Your task to perform on an android device: What's the weather going to be tomorrow? Image 0: 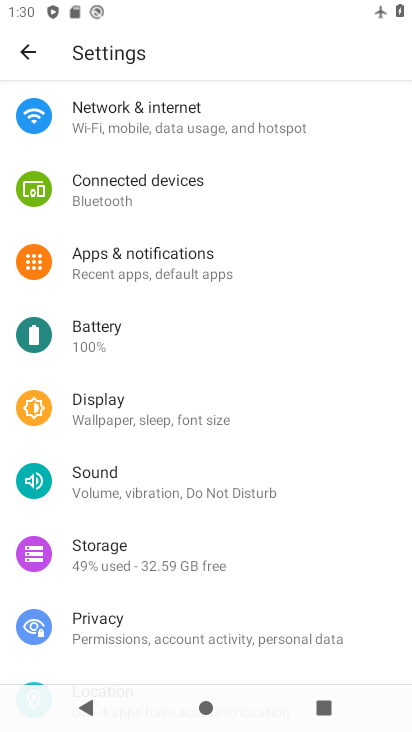
Step 0: press home button
Your task to perform on an android device: What's the weather going to be tomorrow? Image 1: 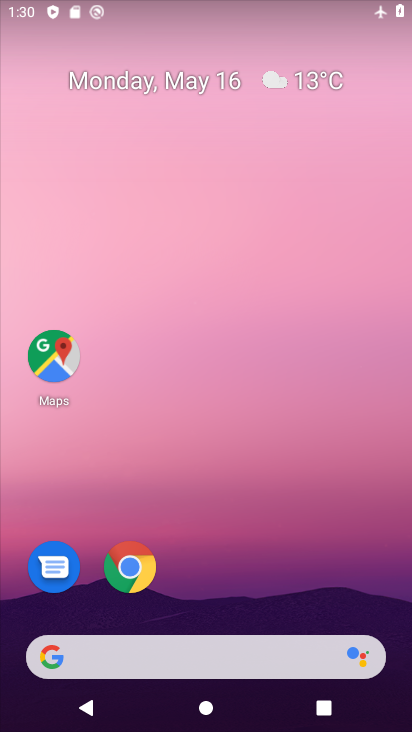
Step 1: click (172, 651)
Your task to perform on an android device: What's the weather going to be tomorrow? Image 2: 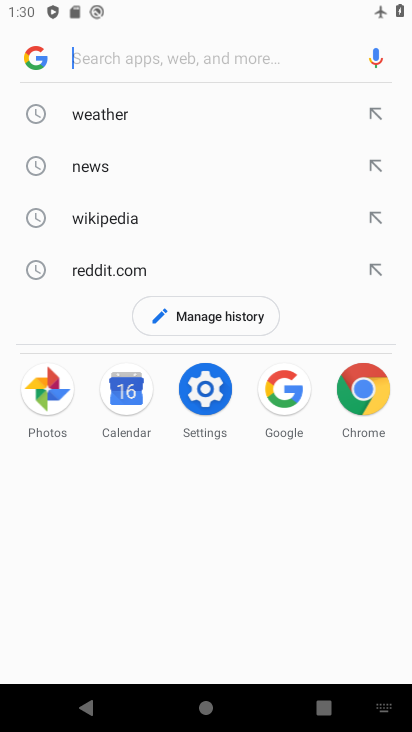
Step 2: click (118, 106)
Your task to perform on an android device: What's the weather going to be tomorrow? Image 3: 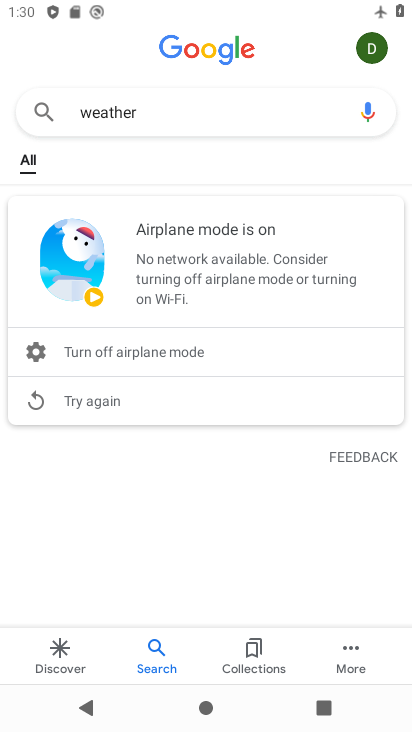
Step 3: click (171, 104)
Your task to perform on an android device: What's the weather going to be tomorrow? Image 4: 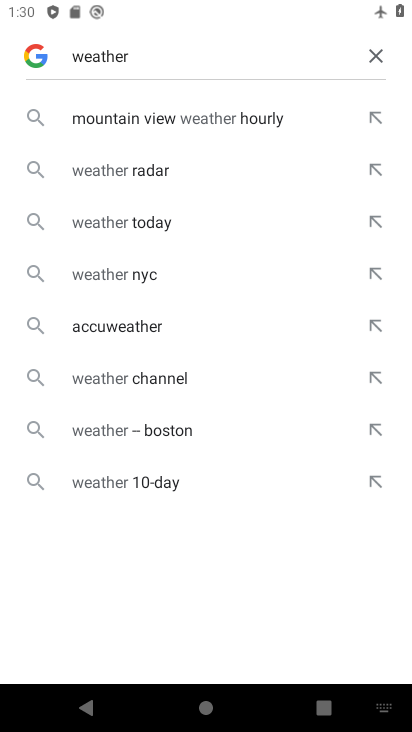
Step 4: click (377, 58)
Your task to perform on an android device: What's the weather going to be tomorrow? Image 5: 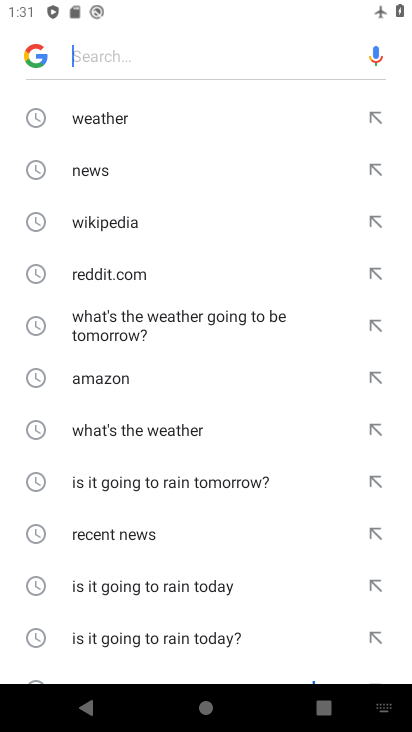
Step 5: click (106, 119)
Your task to perform on an android device: What's the weather going to be tomorrow? Image 6: 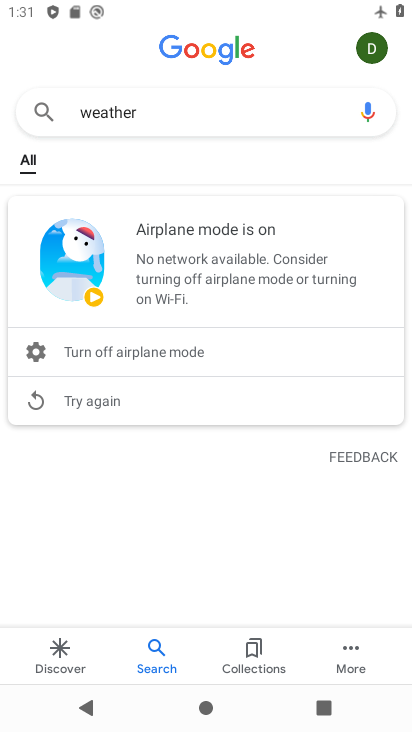
Step 6: task complete